Your task to perform on an android device: manage bookmarks in the chrome app Image 0: 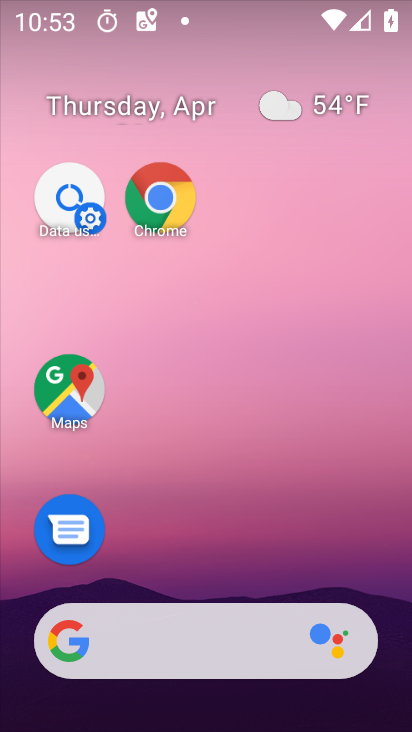
Step 0: drag from (205, 579) to (322, 68)
Your task to perform on an android device: manage bookmarks in the chrome app Image 1: 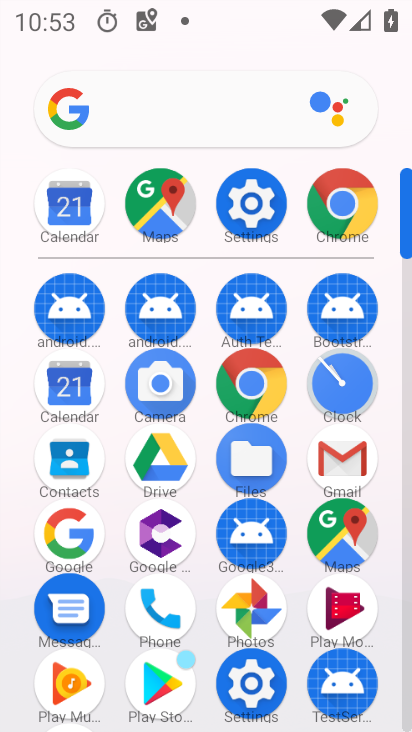
Step 1: click (329, 214)
Your task to perform on an android device: manage bookmarks in the chrome app Image 2: 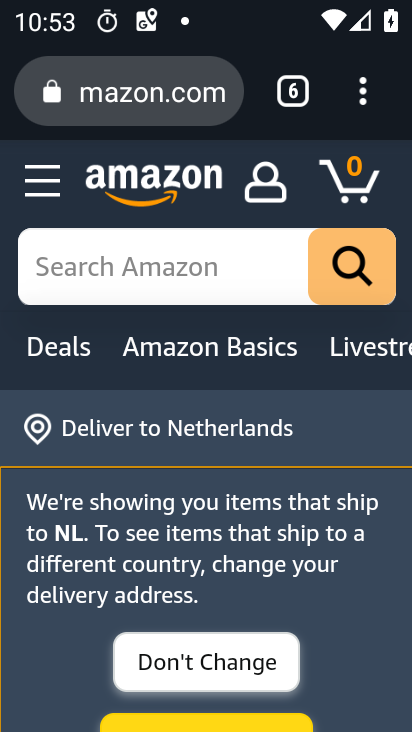
Step 2: task complete